Your task to perform on an android device: turn on location history Image 0: 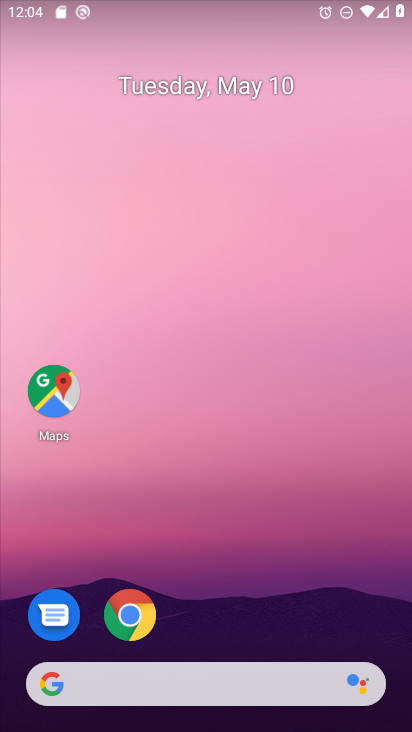
Step 0: drag from (283, 694) to (411, 234)
Your task to perform on an android device: turn on location history Image 1: 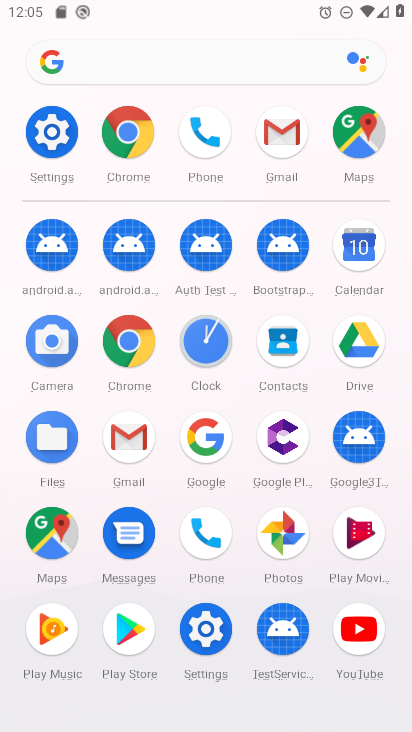
Step 1: click (131, 139)
Your task to perform on an android device: turn on location history Image 2: 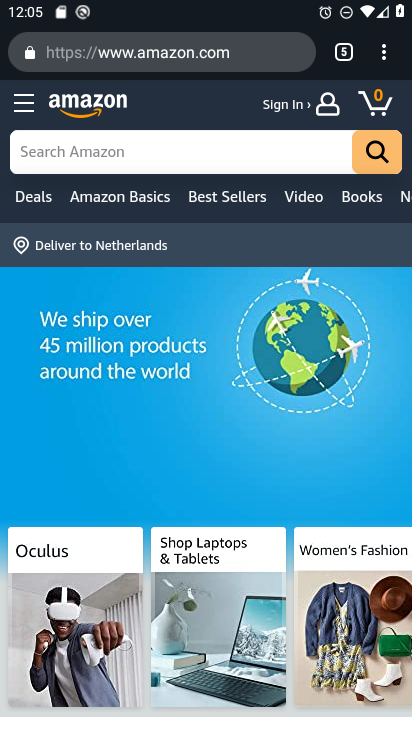
Step 2: click (375, 62)
Your task to perform on an android device: turn on location history Image 3: 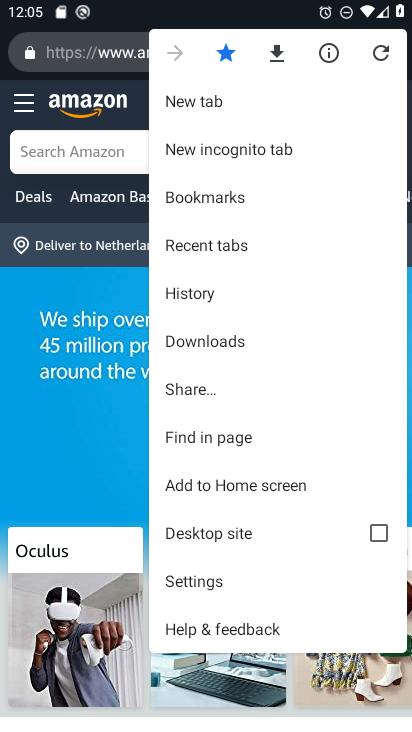
Step 3: press home button
Your task to perform on an android device: turn on location history Image 4: 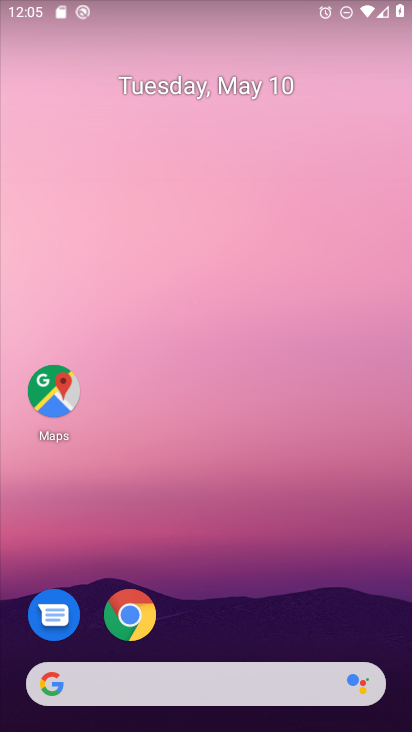
Step 4: drag from (213, 707) to (238, 391)
Your task to perform on an android device: turn on location history Image 5: 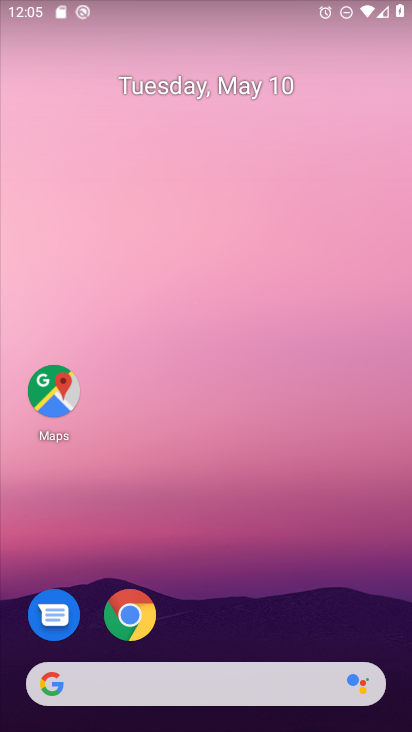
Step 5: click (235, 277)
Your task to perform on an android device: turn on location history Image 6: 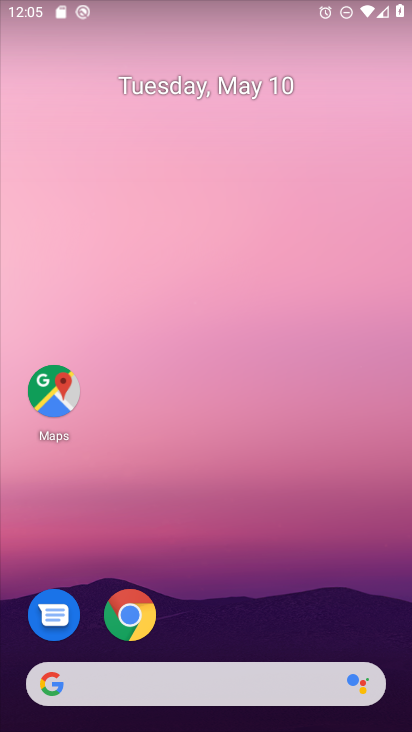
Step 6: drag from (209, 719) to (336, 216)
Your task to perform on an android device: turn on location history Image 7: 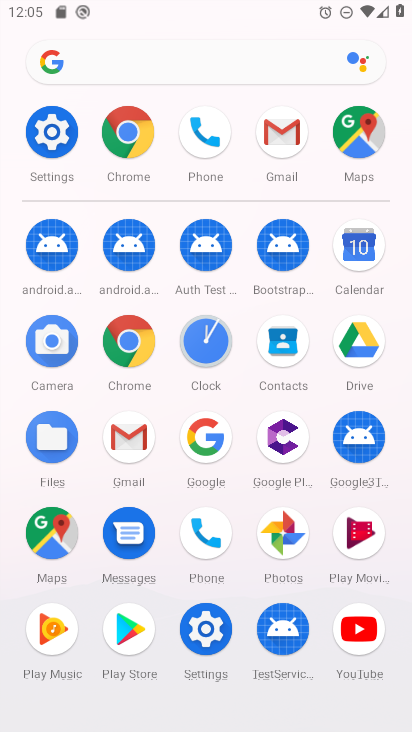
Step 7: click (203, 620)
Your task to perform on an android device: turn on location history Image 8: 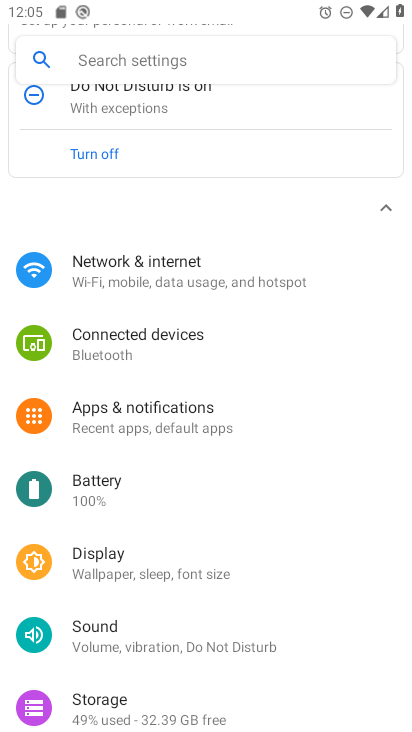
Step 8: click (167, 67)
Your task to perform on an android device: turn on location history Image 9: 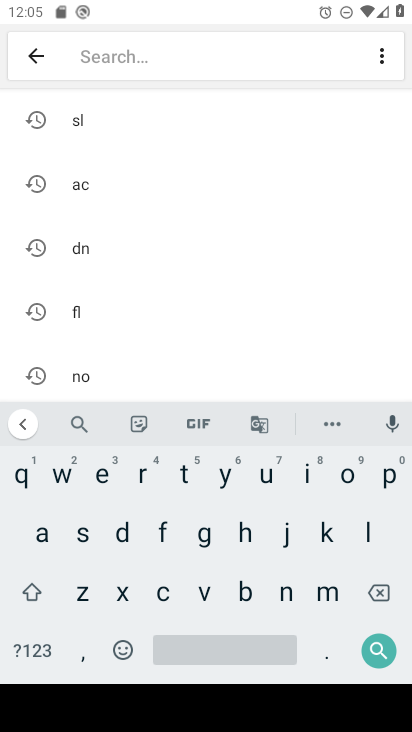
Step 9: click (367, 535)
Your task to perform on an android device: turn on location history Image 10: 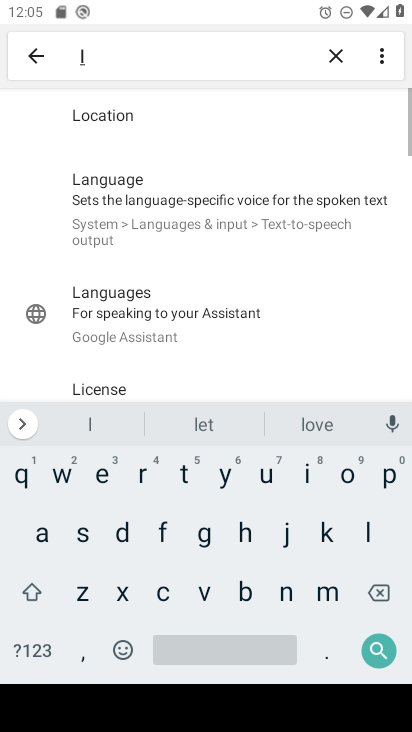
Step 10: click (348, 483)
Your task to perform on an android device: turn on location history Image 11: 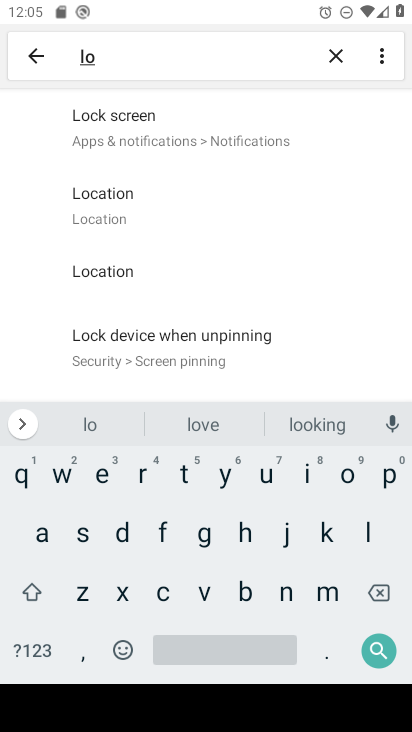
Step 11: click (107, 234)
Your task to perform on an android device: turn on location history Image 12: 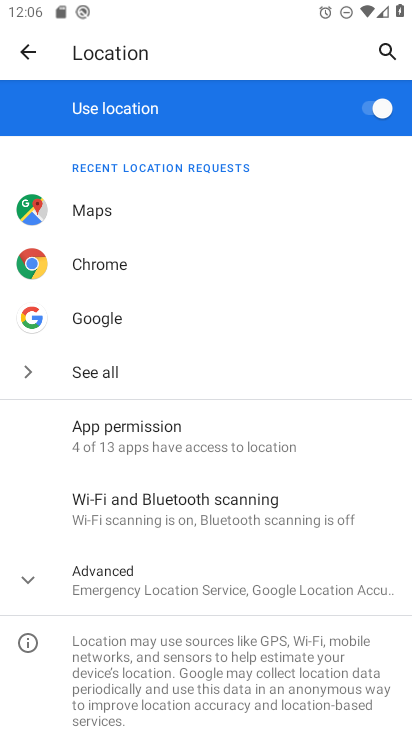
Step 12: task complete